Your task to perform on an android device: open chrome privacy settings Image 0: 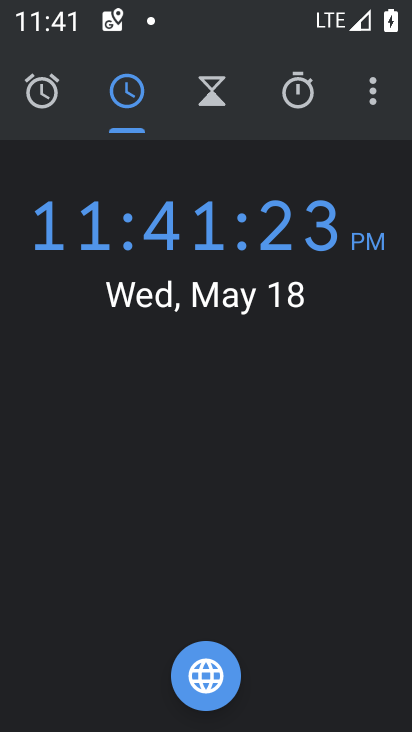
Step 0: press home button
Your task to perform on an android device: open chrome privacy settings Image 1: 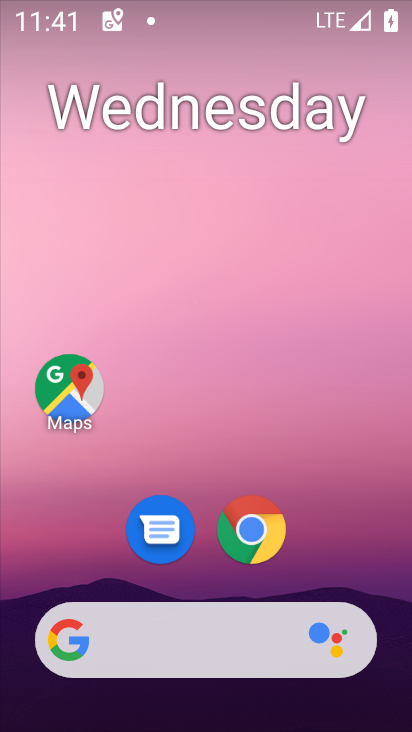
Step 1: click (258, 526)
Your task to perform on an android device: open chrome privacy settings Image 2: 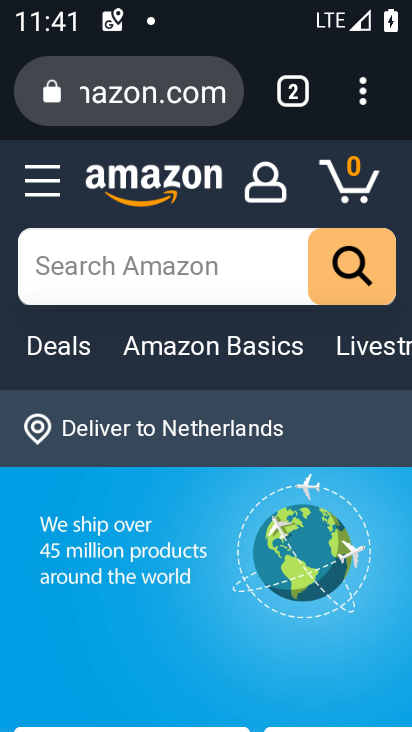
Step 2: click (362, 99)
Your task to perform on an android device: open chrome privacy settings Image 3: 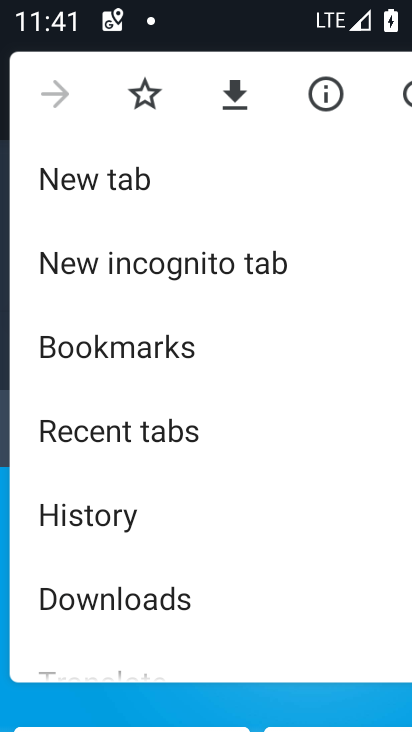
Step 3: drag from (226, 586) to (275, 193)
Your task to perform on an android device: open chrome privacy settings Image 4: 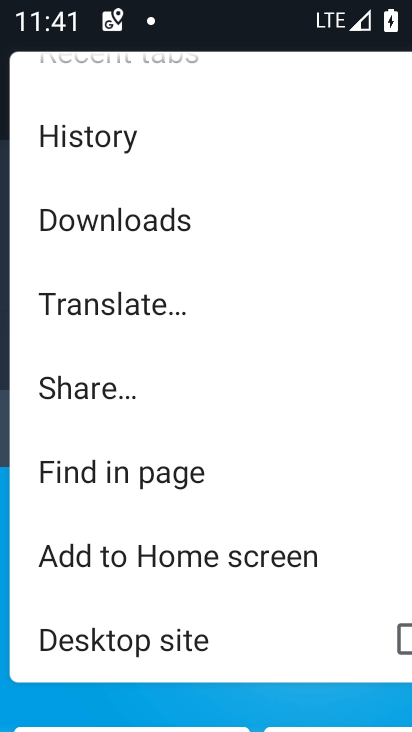
Step 4: drag from (281, 635) to (364, 225)
Your task to perform on an android device: open chrome privacy settings Image 5: 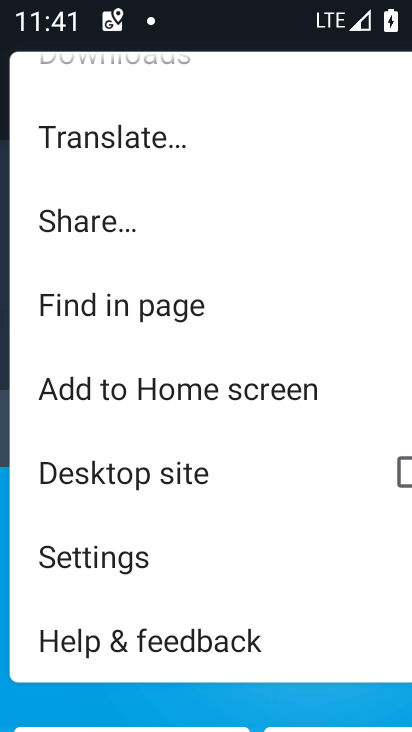
Step 5: click (118, 558)
Your task to perform on an android device: open chrome privacy settings Image 6: 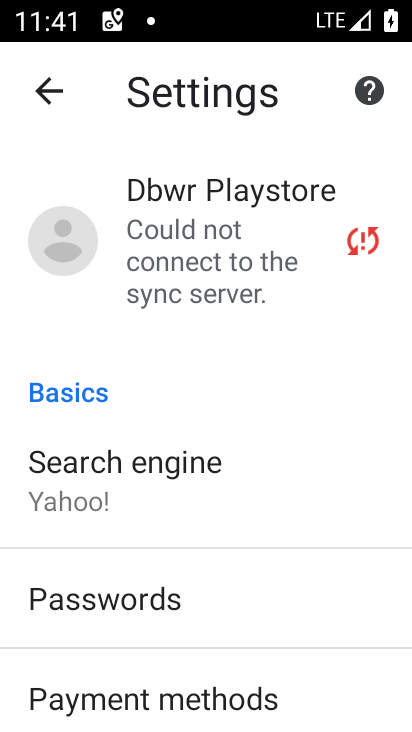
Step 6: drag from (250, 642) to (251, 220)
Your task to perform on an android device: open chrome privacy settings Image 7: 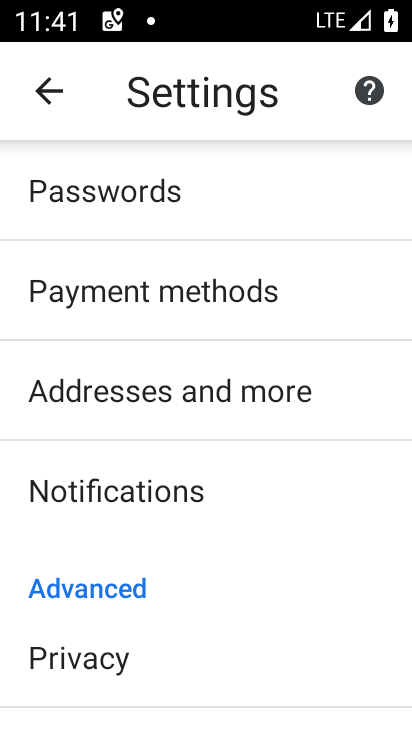
Step 7: drag from (243, 650) to (270, 281)
Your task to perform on an android device: open chrome privacy settings Image 8: 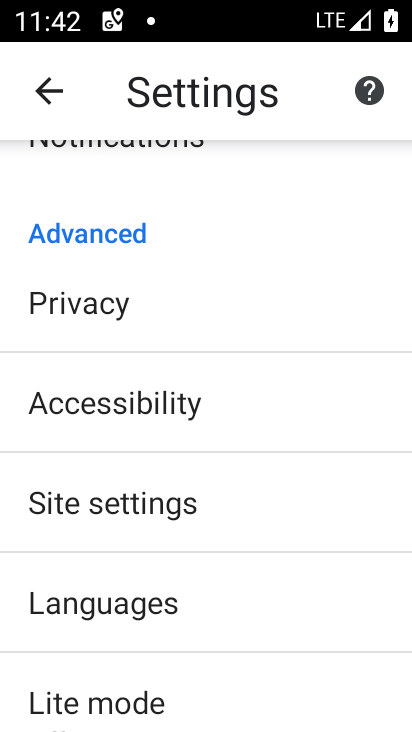
Step 8: click (77, 310)
Your task to perform on an android device: open chrome privacy settings Image 9: 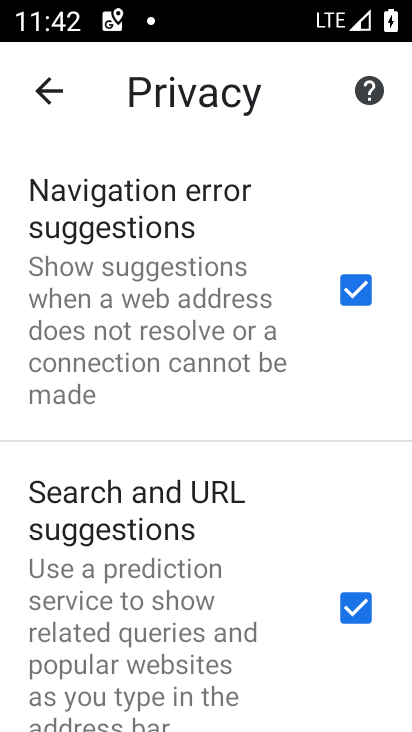
Step 9: task complete